Your task to perform on an android device: turn off airplane mode Image 0: 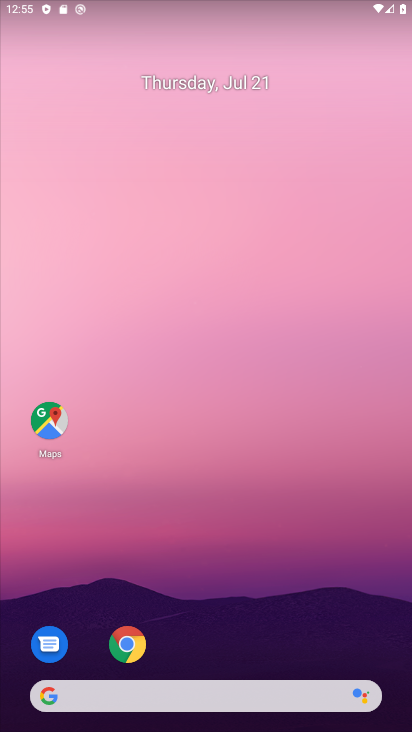
Step 0: drag from (207, 661) to (147, 100)
Your task to perform on an android device: turn off airplane mode Image 1: 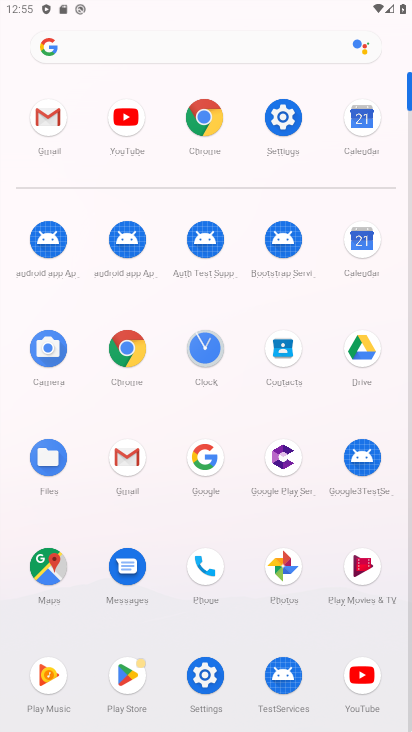
Step 1: click (278, 117)
Your task to perform on an android device: turn off airplane mode Image 2: 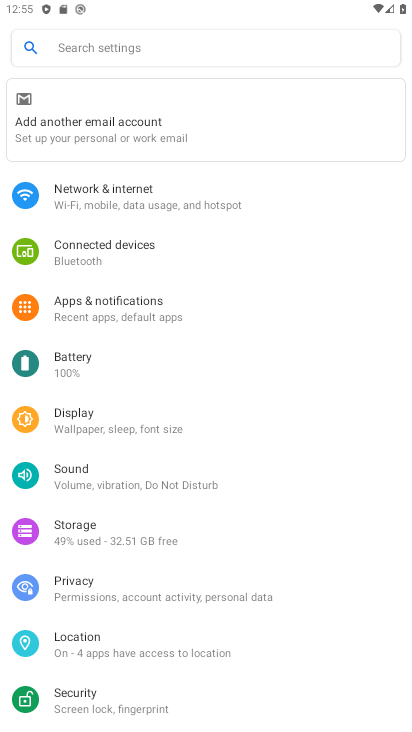
Step 2: click (111, 188)
Your task to perform on an android device: turn off airplane mode Image 3: 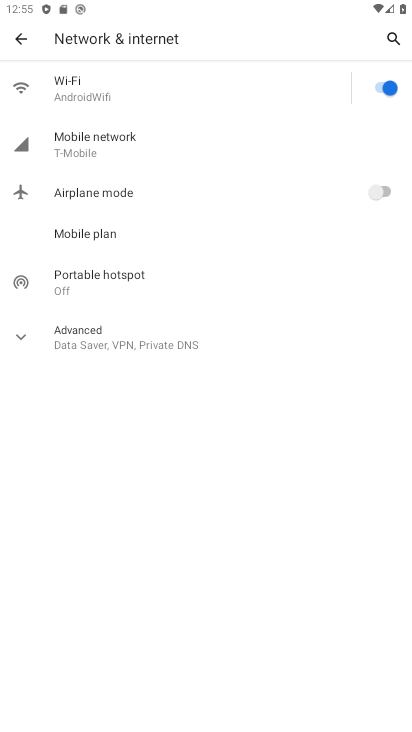
Step 3: task complete